Your task to perform on an android device: Add amazon basics triple a to the cart on ebay Image 0: 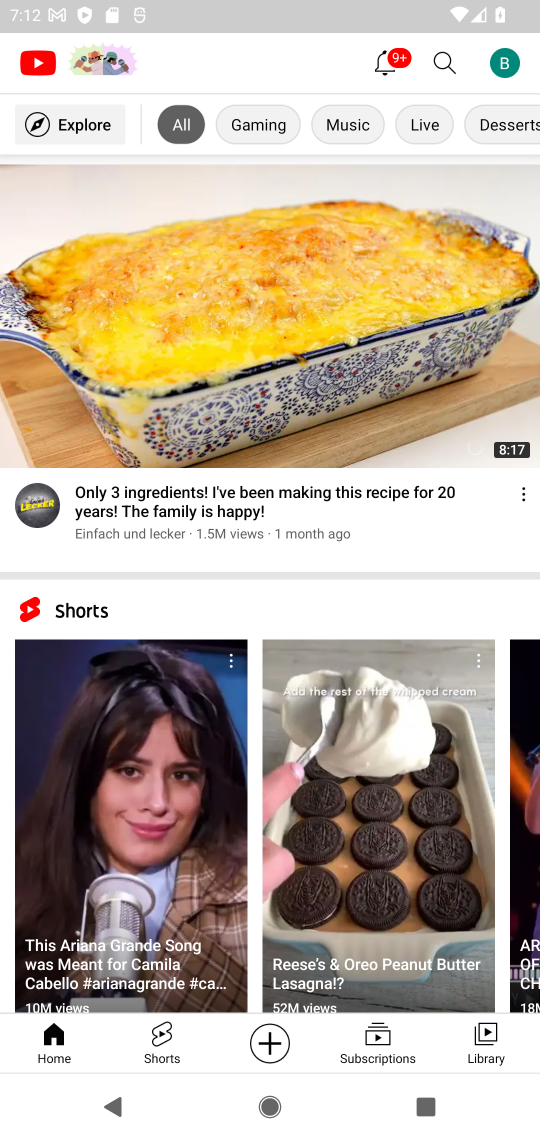
Step 0: press home button
Your task to perform on an android device: Add amazon basics triple a to the cart on ebay Image 1: 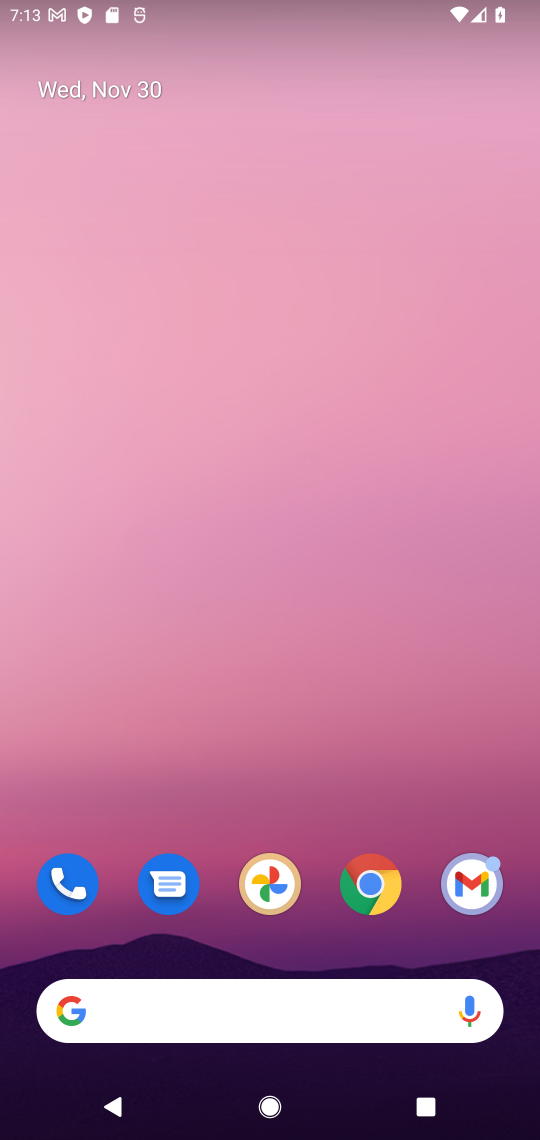
Step 1: click (380, 873)
Your task to perform on an android device: Add amazon basics triple a to the cart on ebay Image 2: 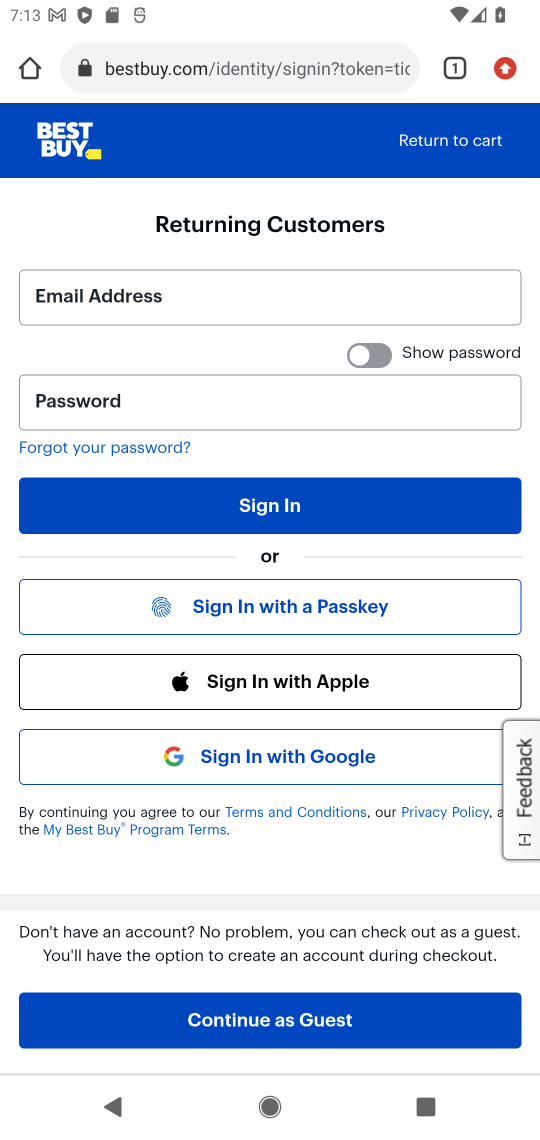
Step 2: click (211, 71)
Your task to perform on an android device: Add amazon basics triple a to the cart on ebay Image 3: 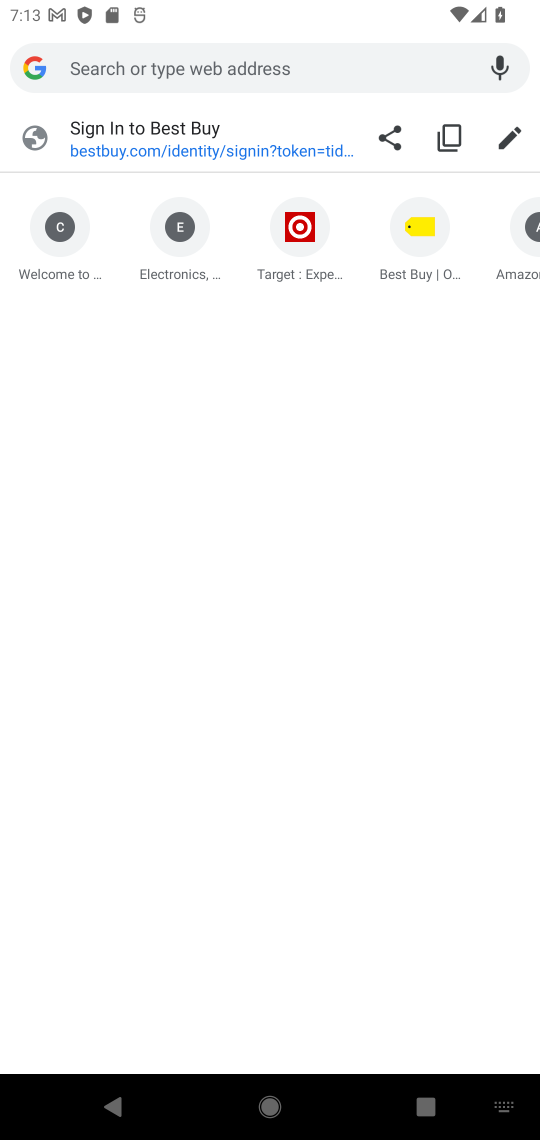
Step 3: type "ebay.com"
Your task to perform on an android device: Add amazon basics triple a to the cart on ebay Image 4: 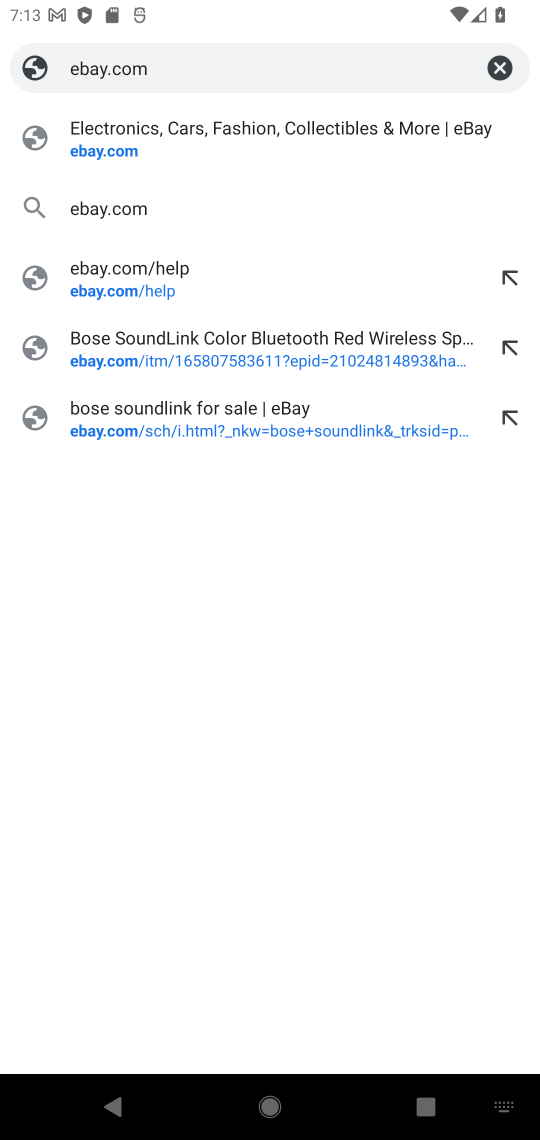
Step 4: click (111, 160)
Your task to perform on an android device: Add amazon basics triple a to the cart on ebay Image 5: 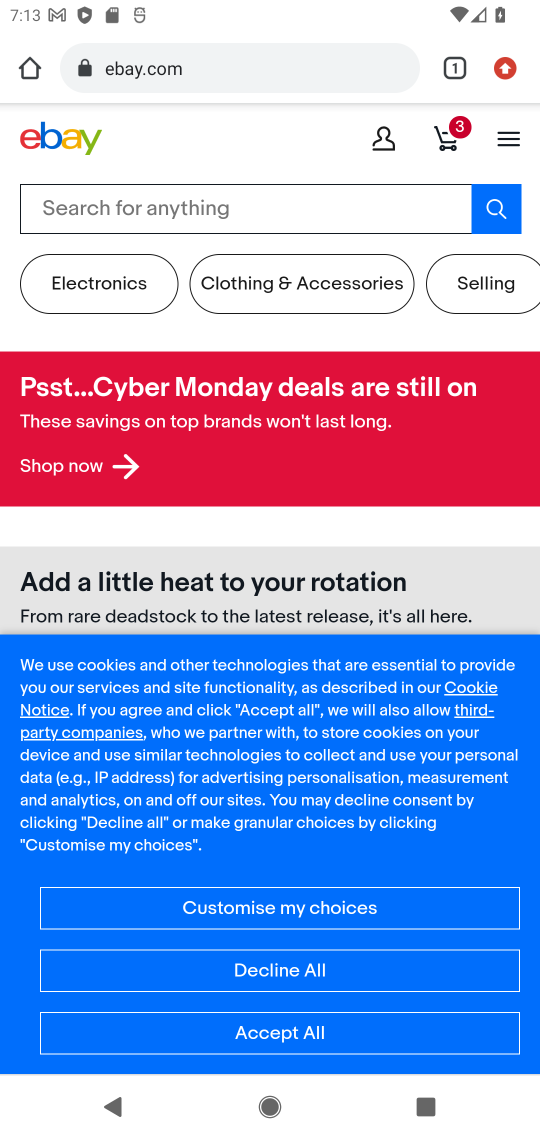
Step 5: click (88, 209)
Your task to perform on an android device: Add amazon basics triple a to the cart on ebay Image 6: 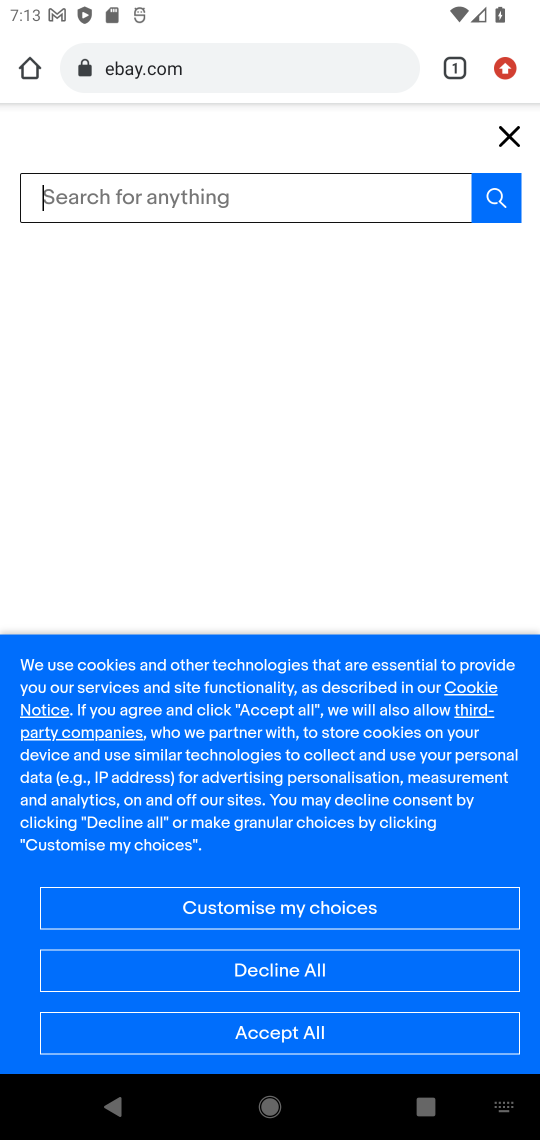
Step 6: click (128, 203)
Your task to perform on an android device: Add amazon basics triple a to the cart on ebay Image 7: 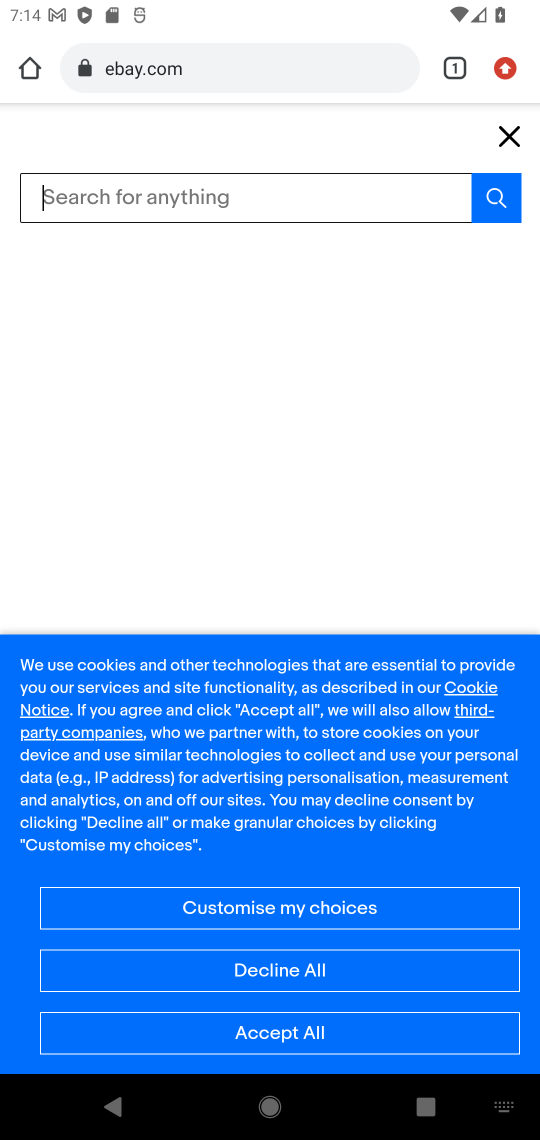
Step 7: type "amazon basics triple a"
Your task to perform on an android device: Add amazon basics triple a to the cart on ebay Image 8: 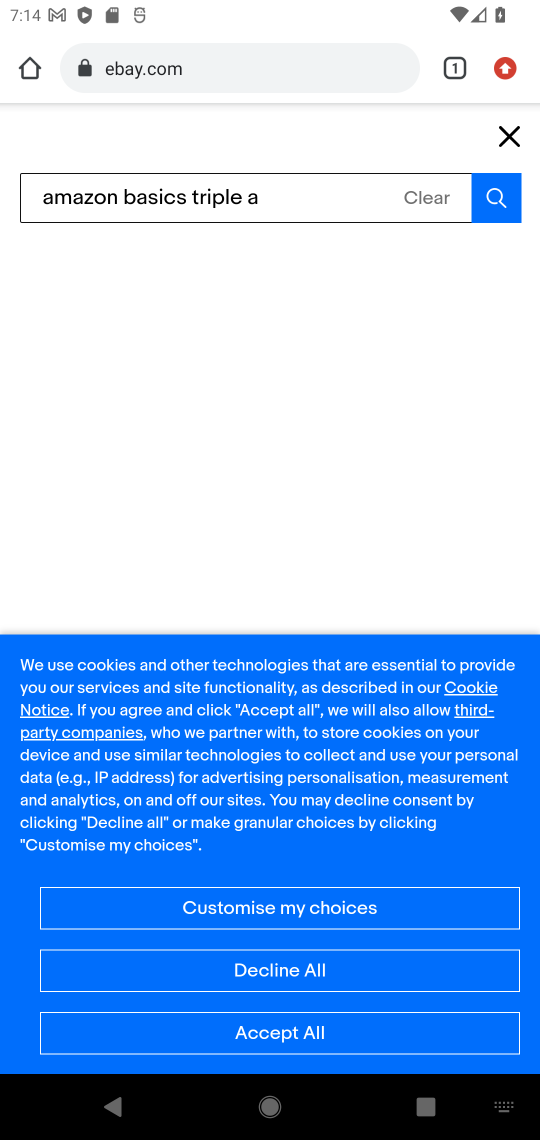
Step 8: click (500, 203)
Your task to perform on an android device: Add amazon basics triple a to the cart on ebay Image 9: 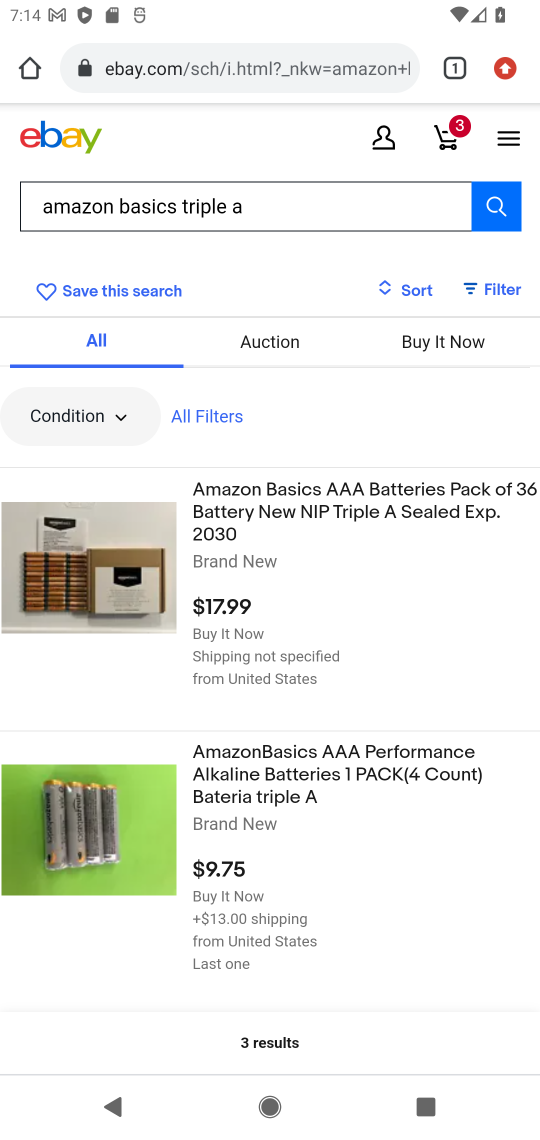
Step 9: click (227, 496)
Your task to perform on an android device: Add amazon basics triple a to the cart on ebay Image 10: 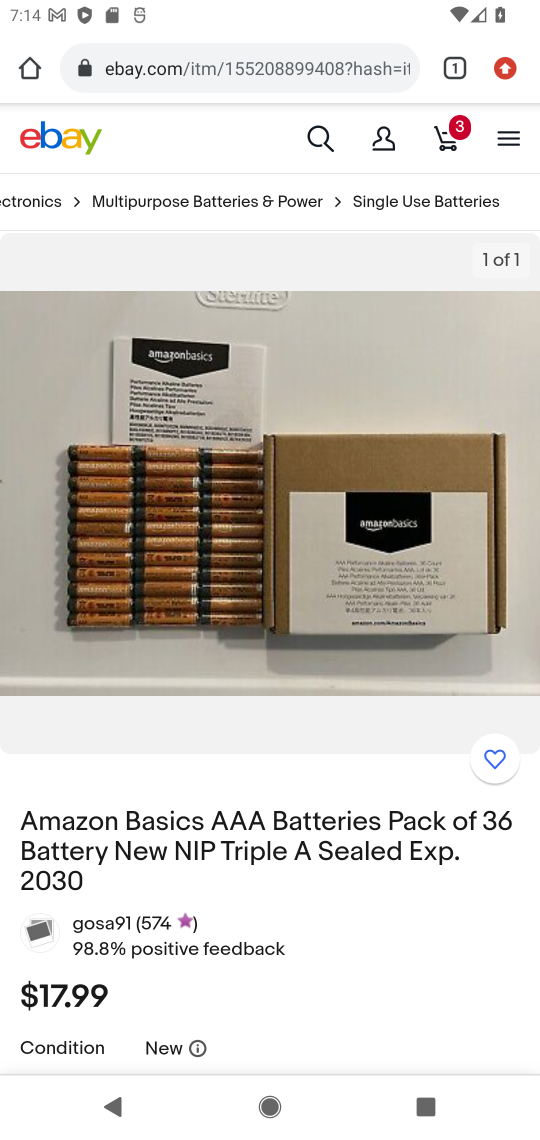
Step 10: drag from (267, 879) to (270, 450)
Your task to perform on an android device: Add amazon basics triple a to the cart on ebay Image 11: 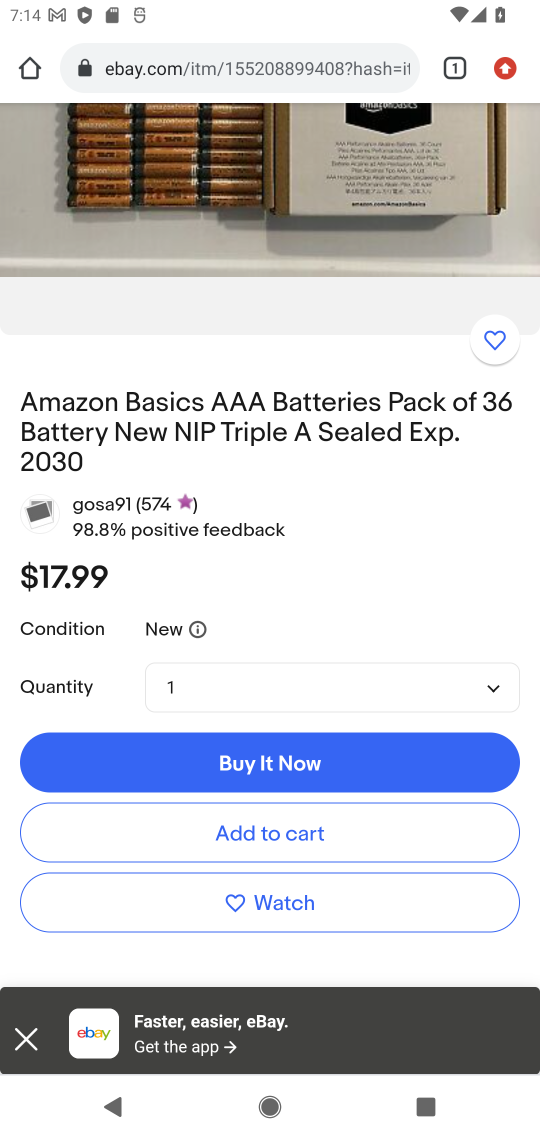
Step 11: click (221, 826)
Your task to perform on an android device: Add amazon basics triple a to the cart on ebay Image 12: 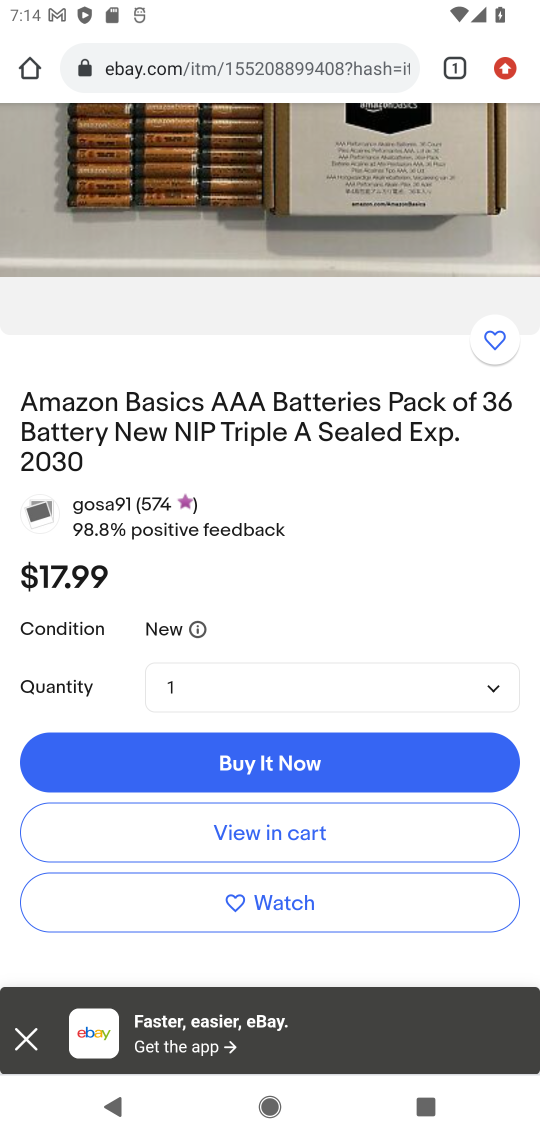
Step 12: task complete